Your task to perform on an android device: stop showing notifications on the lock screen Image 0: 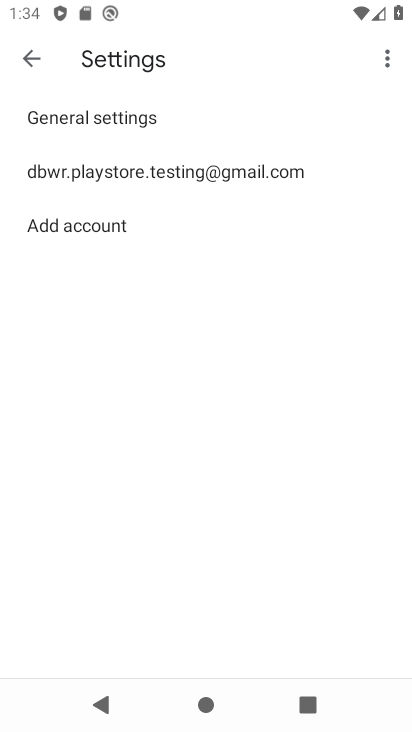
Step 0: press home button
Your task to perform on an android device: stop showing notifications on the lock screen Image 1: 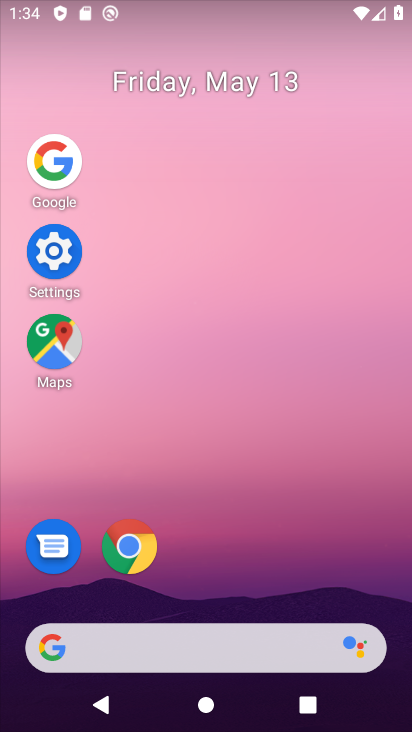
Step 1: click (56, 242)
Your task to perform on an android device: stop showing notifications on the lock screen Image 2: 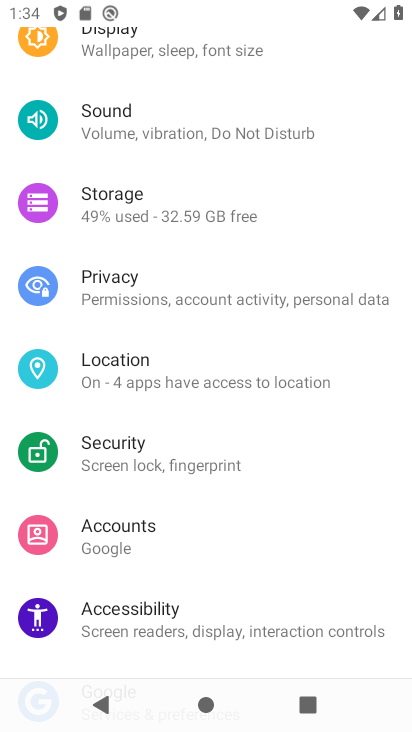
Step 2: drag from (252, 106) to (220, 524)
Your task to perform on an android device: stop showing notifications on the lock screen Image 3: 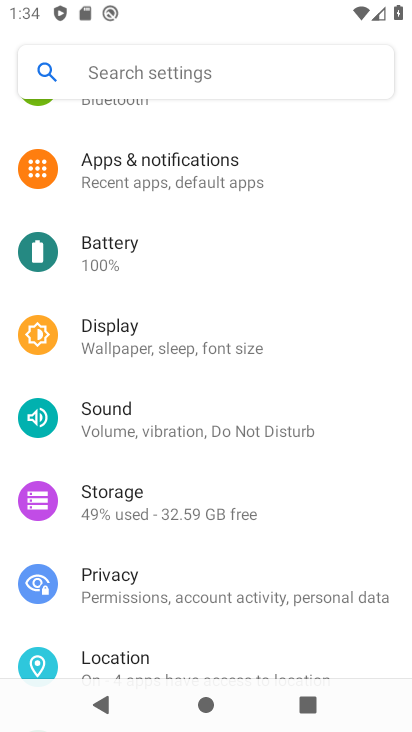
Step 3: click (236, 173)
Your task to perform on an android device: stop showing notifications on the lock screen Image 4: 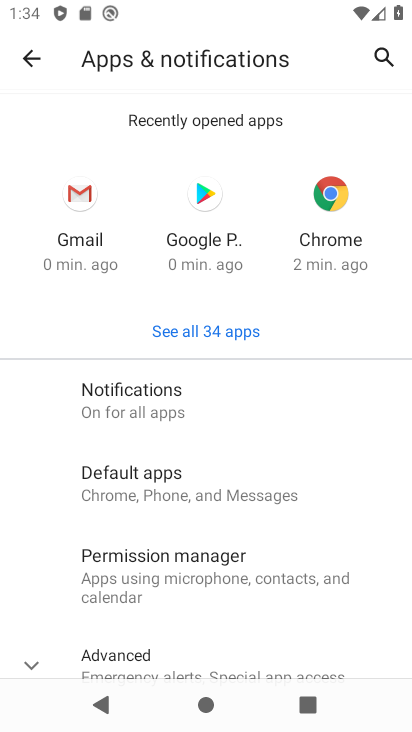
Step 4: click (281, 399)
Your task to perform on an android device: stop showing notifications on the lock screen Image 5: 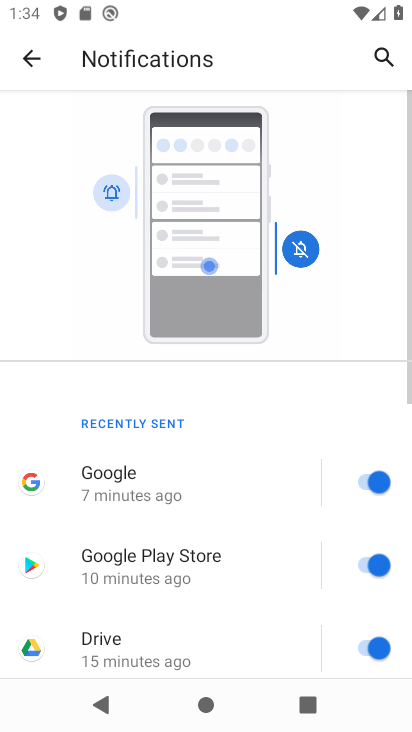
Step 5: drag from (233, 610) to (273, 164)
Your task to perform on an android device: stop showing notifications on the lock screen Image 6: 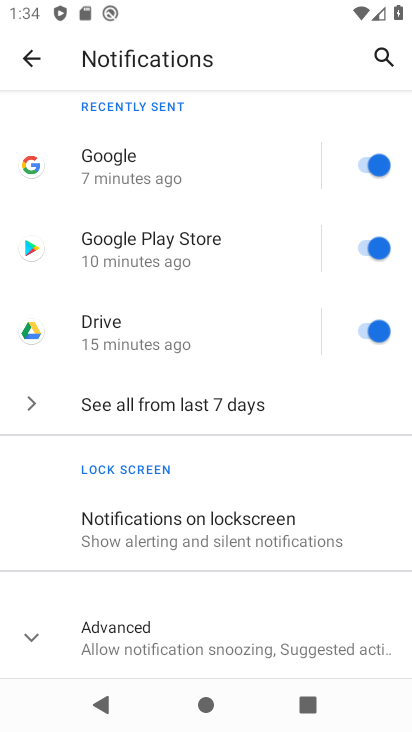
Step 6: click (211, 514)
Your task to perform on an android device: stop showing notifications on the lock screen Image 7: 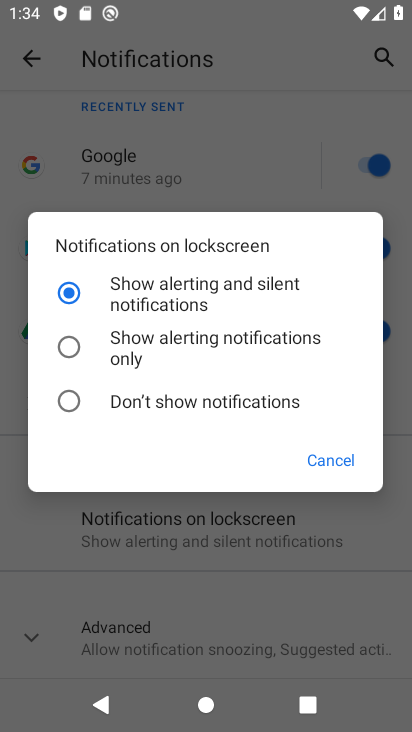
Step 7: click (131, 408)
Your task to perform on an android device: stop showing notifications on the lock screen Image 8: 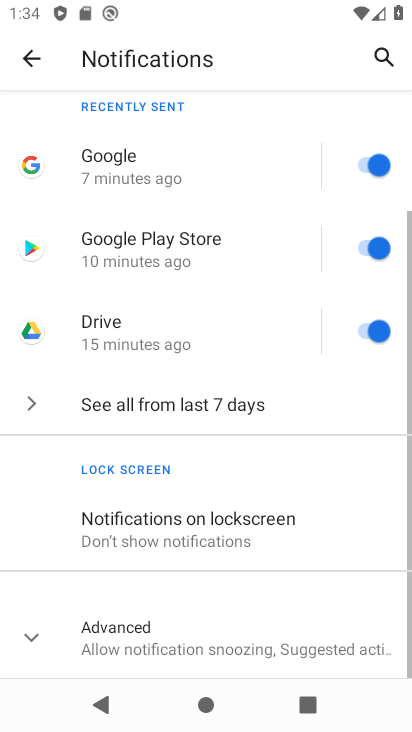
Step 8: task complete